Your task to perform on an android device: open device folders in google photos Image 0: 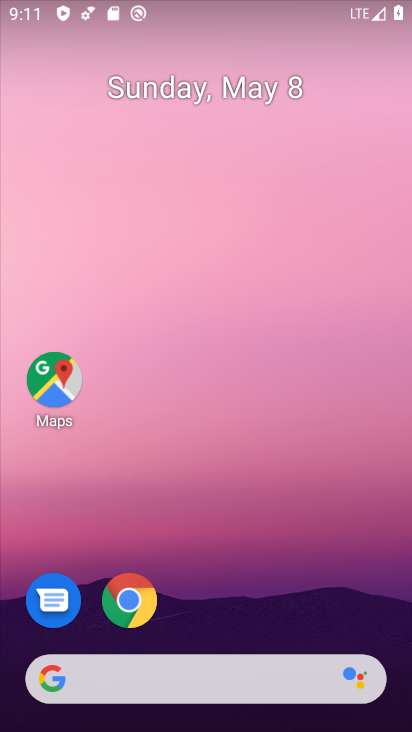
Step 0: drag from (329, 594) to (282, 0)
Your task to perform on an android device: open device folders in google photos Image 1: 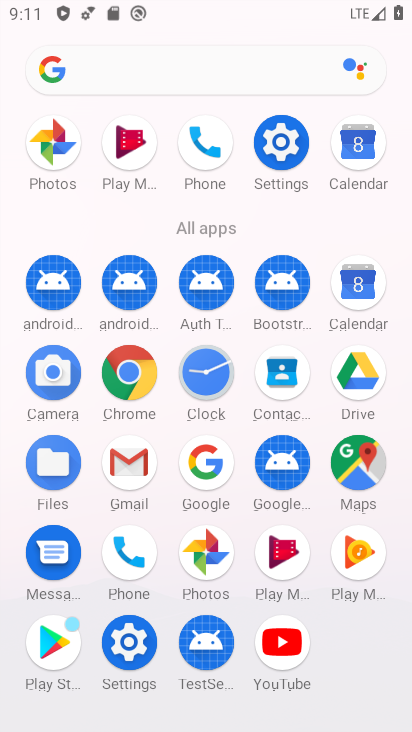
Step 1: click (47, 149)
Your task to perform on an android device: open device folders in google photos Image 2: 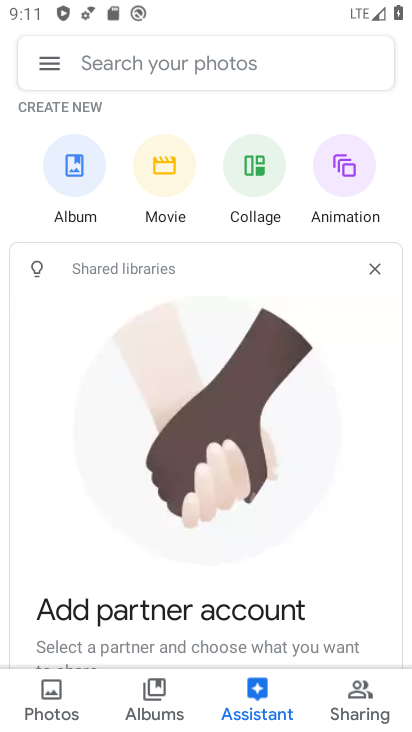
Step 2: click (45, 47)
Your task to perform on an android device: open device folders in google photos Image 3: 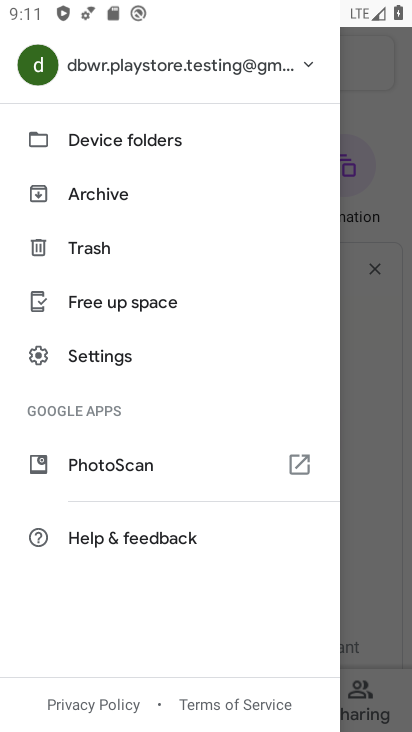
Step 3: click (100, 145)
Your task to perform on an android device: open device folders in google photos Image 4: 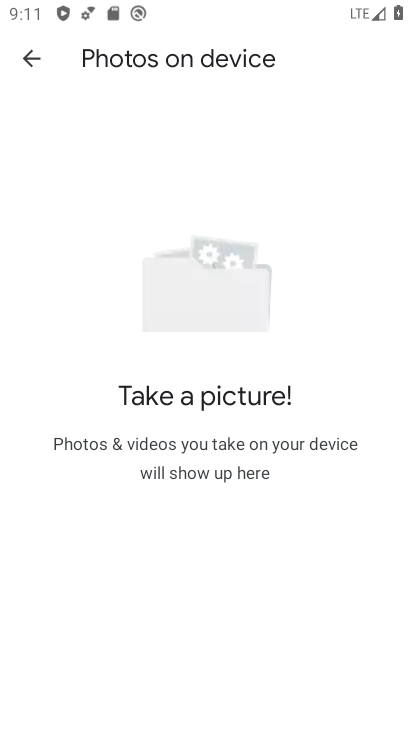
Step 4: task complete